Your task to perform on an android device: Open maps Image 0: 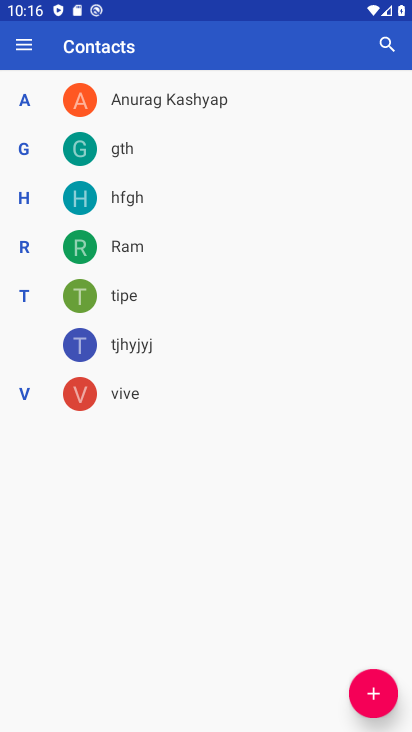
Step 0: press home button
Your task to perform on an android device: Open maps Image 1: 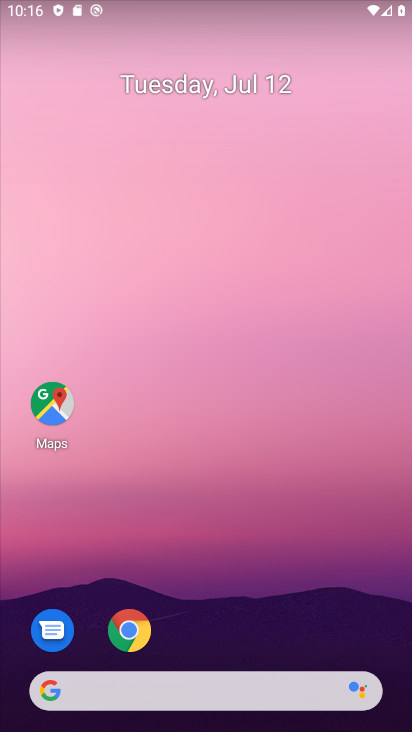
Step 1: drag from (326, 619) to (323, 16)
Your task to perform on an android device: Open maps Image 2: 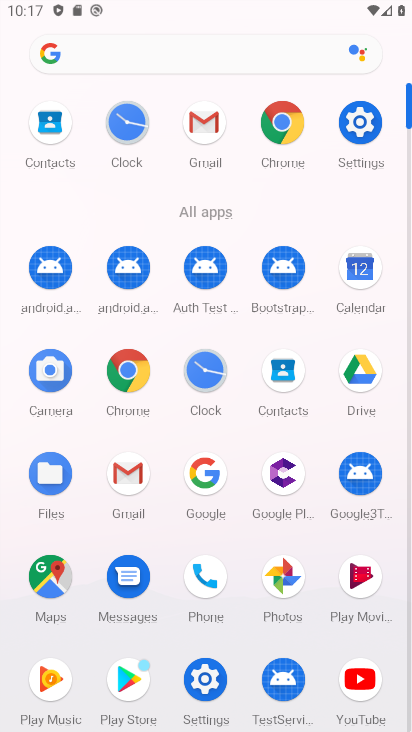
Step 2: click (53, 590)
Your task to perform on an android device: Open maps Image 3: 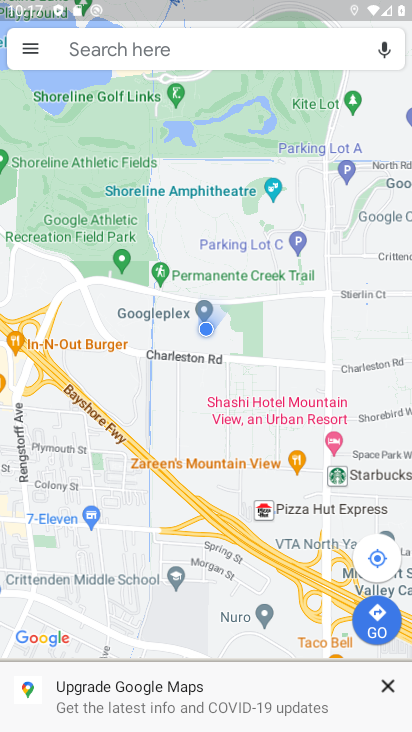
Step 3: task complete